Your task to perform on an android device: change your default location settings in chrome Image 0: 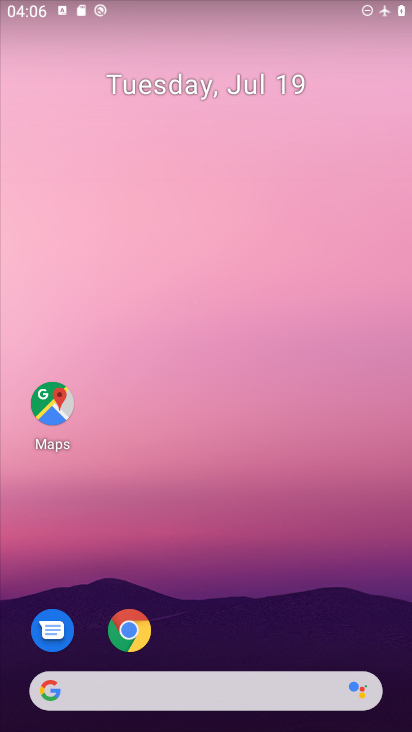
Step 0: click (130, 634)
Your task to perform on an android device: change your default location settings in chrome Image 1: 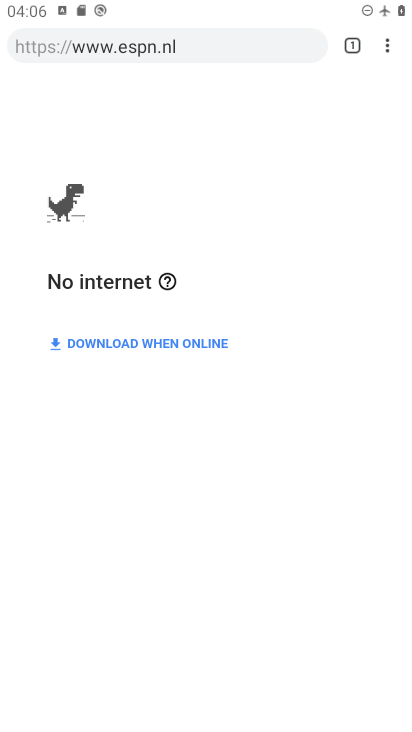
Step 1: click (384, 47)
Your task to perform on an android device: change your default location settings in chrome Image 2: 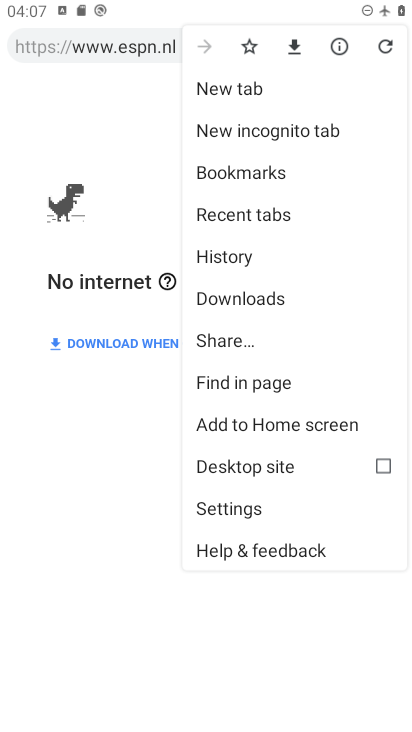
Step 2: click (238, 507)
Your task to perform on an android device: change your default location settings in chrome Image 3: 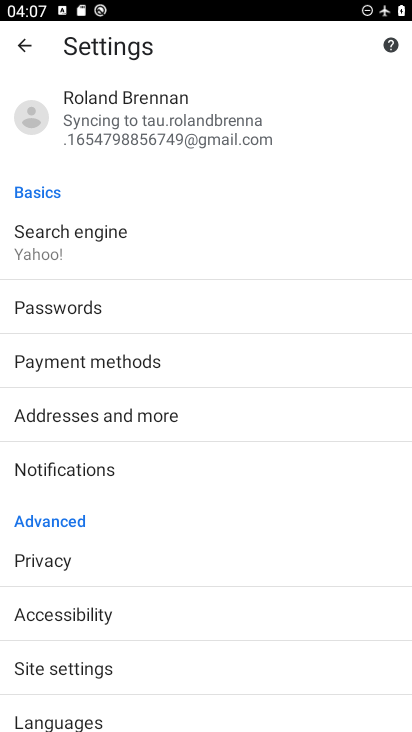
Step 3: click (83, 649)
Your task to perform on an android device: change your default location settings in chrome Image 4: 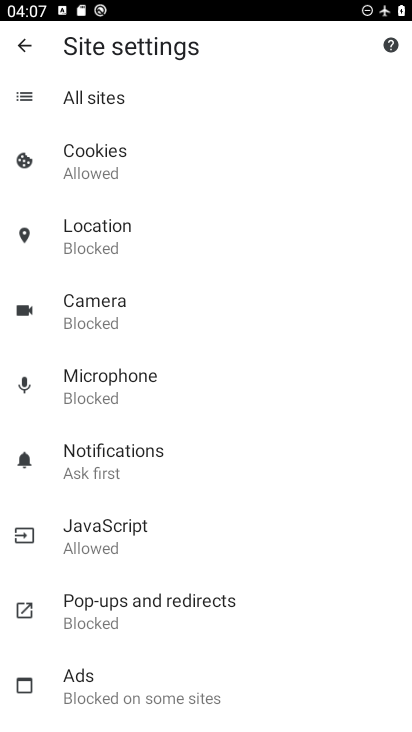
Step 4: click (84, 227)
Your task to perform on an android device: change your default location settings in chrome Image 5: 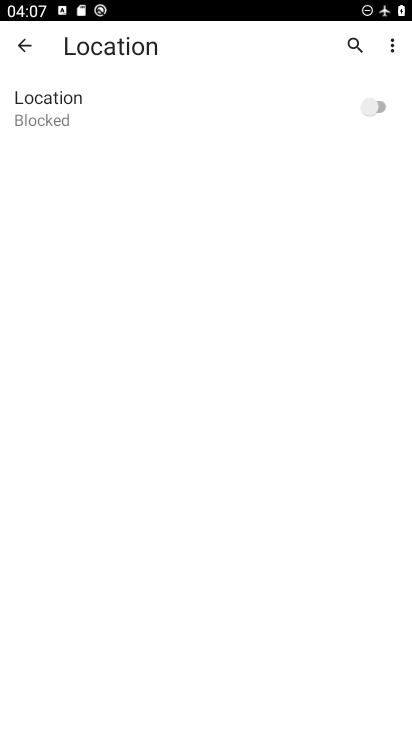
Step 5: click (379, 99)
Your task to perform on an android device: change your default location settings in chrome Image 6: 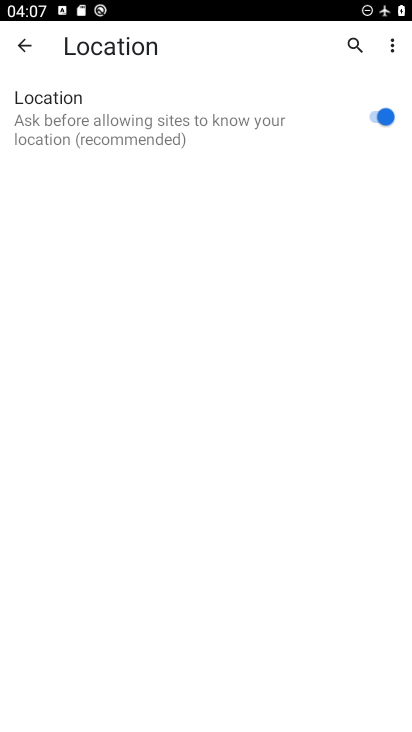
Step 6: task complete